Your task to perform on an android device: turn pop-ups off in chrome Image 0: 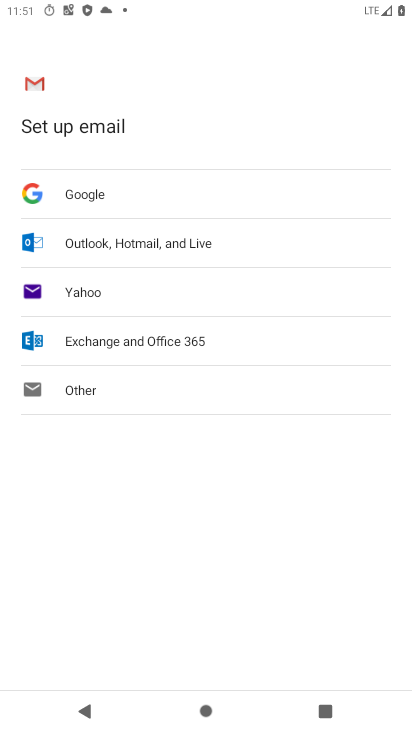
Step 0: press home button
Your task to perform on an android device: turn pop-ups off in chrome Image 1: 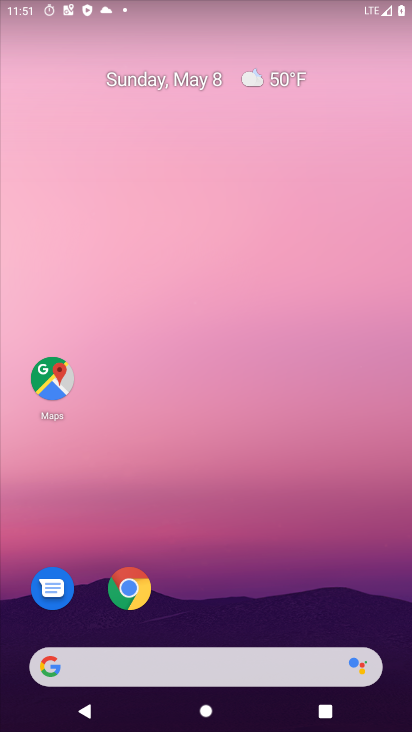
Step 1: click (138, 591)
Your task to perform on an android device: turn pop-ups off in chrome Image 2: 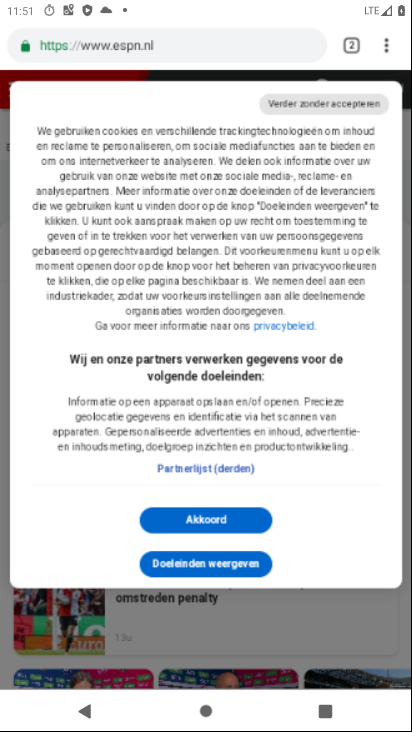
Step 2: click (383, 52)
Your task to perform on an android device: turn pop-ups off in chrome Image 3: 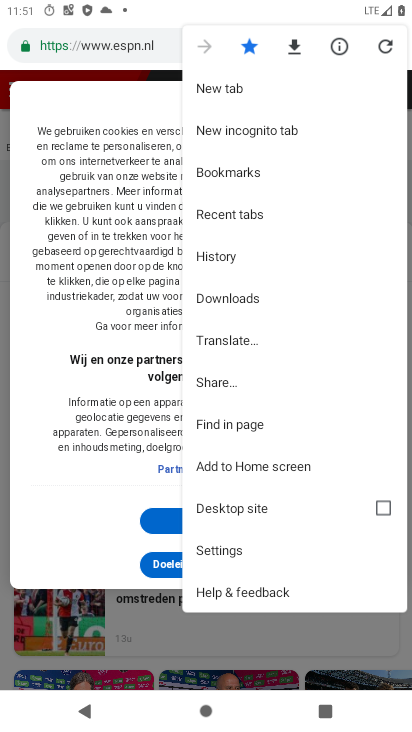
Step 3: click (238, 553)
Your task to perform on an android device: turn pop-ups off in chrome Image 4: 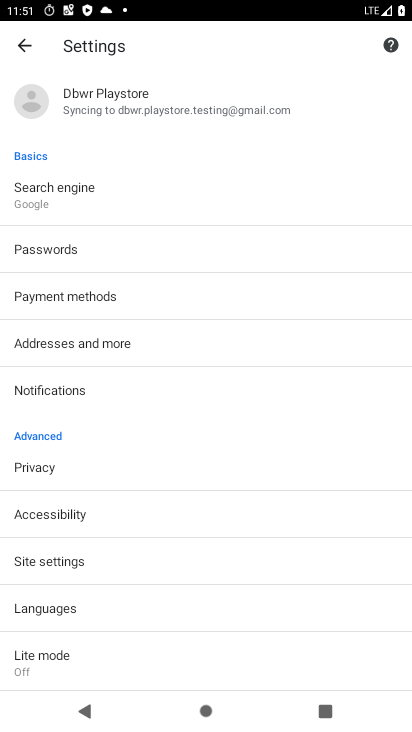
Step 4: click (82, 551)
Your task to perform on an android device: turn pop-ups off in chrome Image 5: 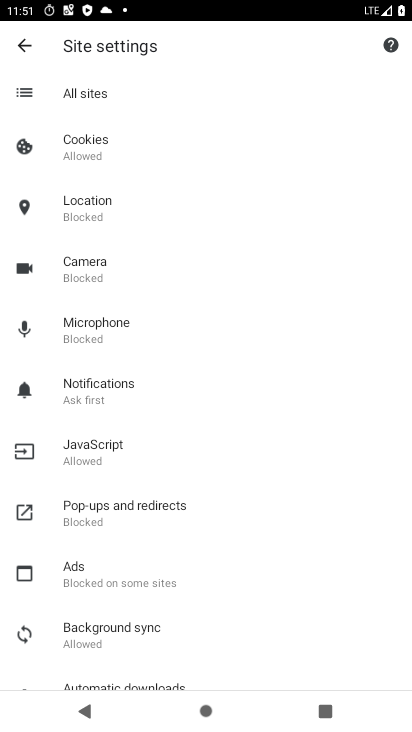
Step 5: drag from (207, 620) to (223, 287)
Your task to perform on an android device: turn pop-ups off in chrome Image 6: 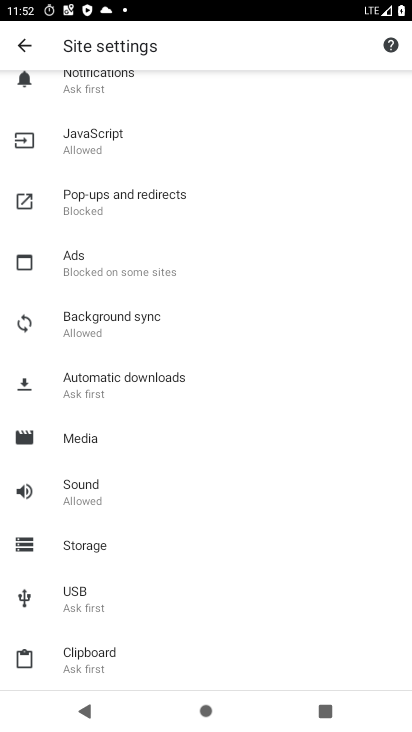
Step 6: click (193, 215)
Your task to perform on an android device: turn pop-ups off in chrome Image 7: 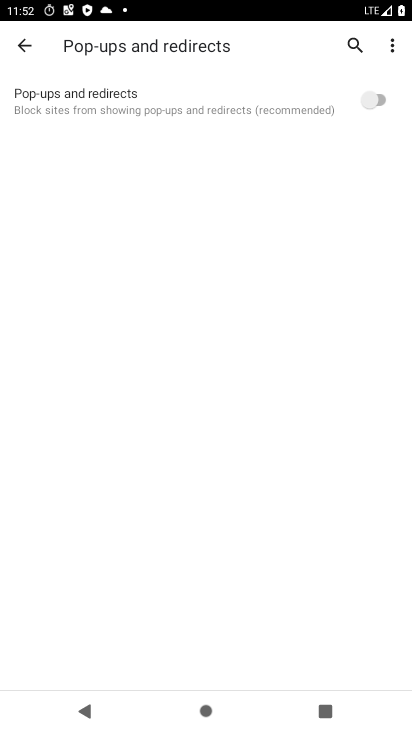
Step 7: task complete